Your task to perform on an android device: Search for pizza restaurants on Maps Image 0: 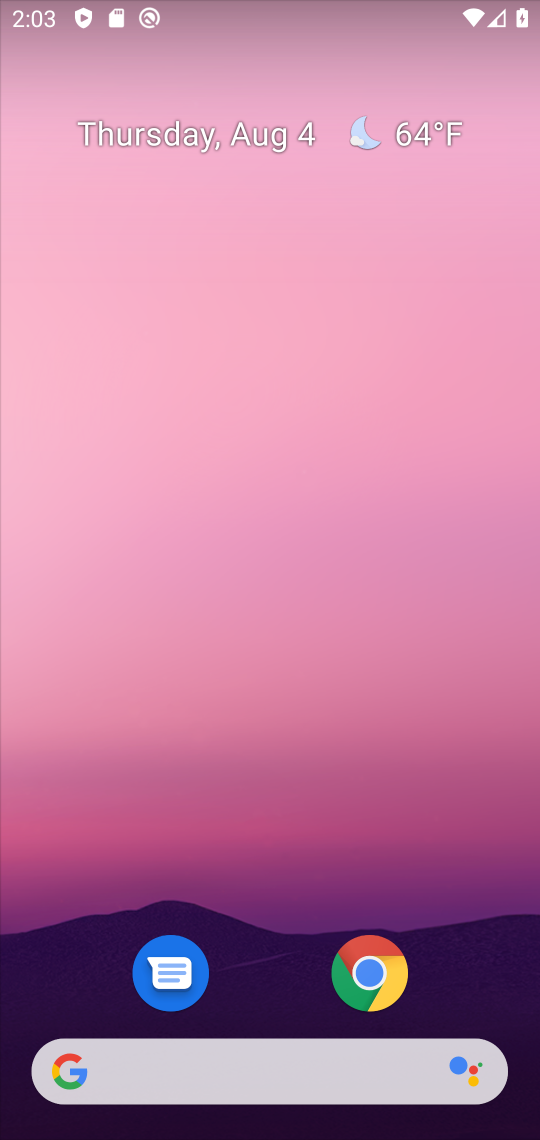
Step 0: drag from (249, 1013) to (247, 21)
Your task to perform on an android device: Search for pizza restaurants on Maps Image 1: 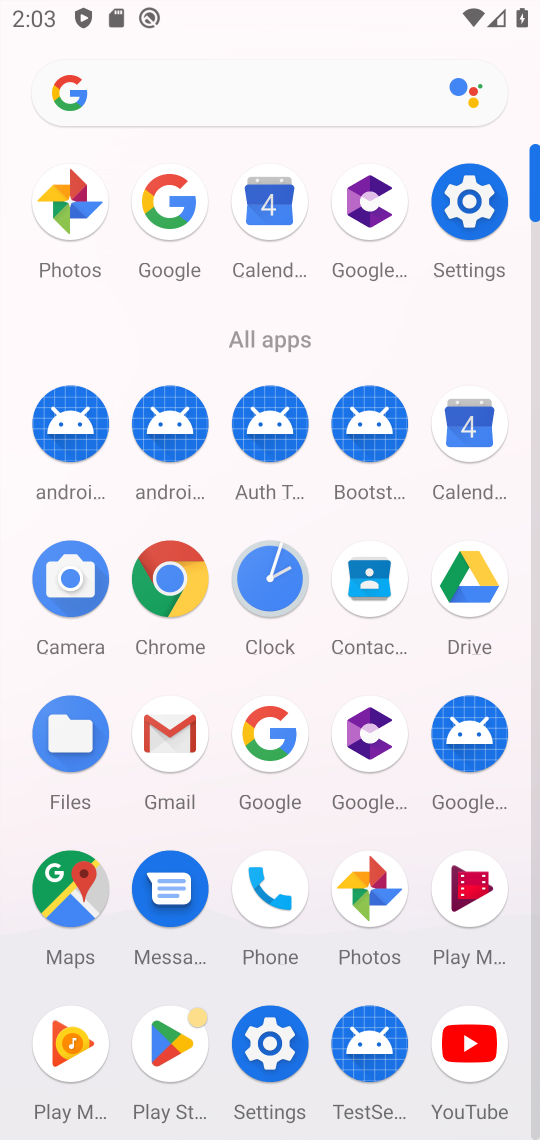
Step 1: click (26, 884)
Your task to perform on an android device: Search for pizza restaurants on Maps Image 2: 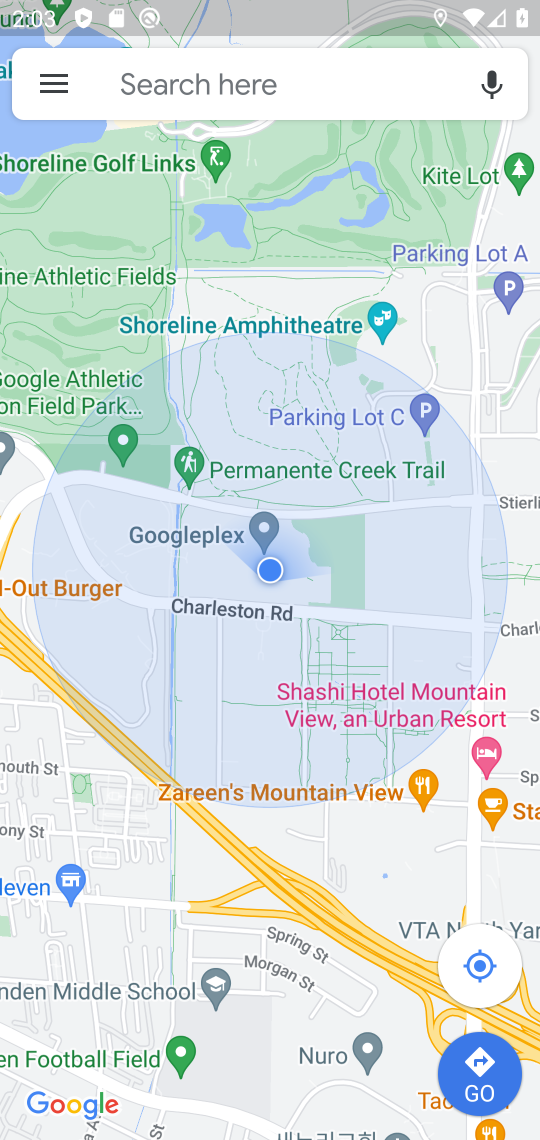
Step 2: click (214, 106)
Your task to perform on an android device: Search for pizza restaurants on Maps Image 3: 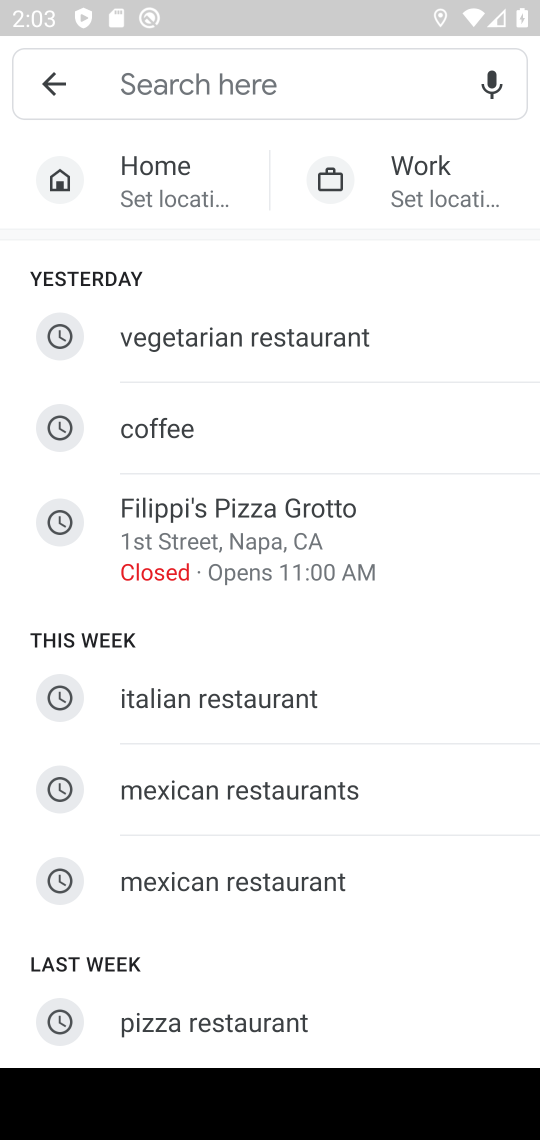
Step 3: click (219, 1024)
Your task to perform on an android device: Search for pizza restaurants on Maps Image 4: 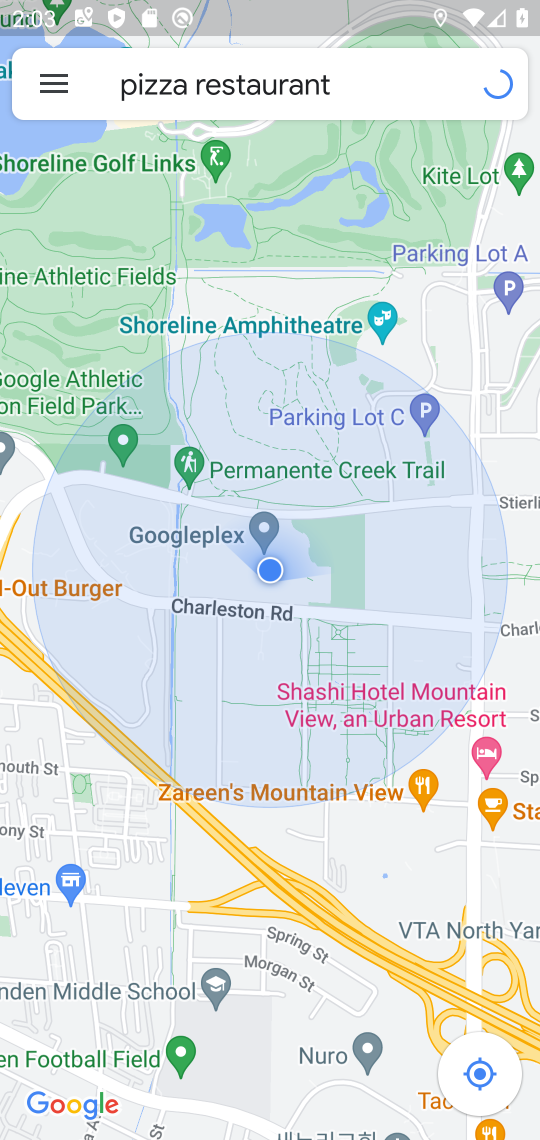
Step 4: task complete